Your task to perform on an android device: Check the news Image 0: 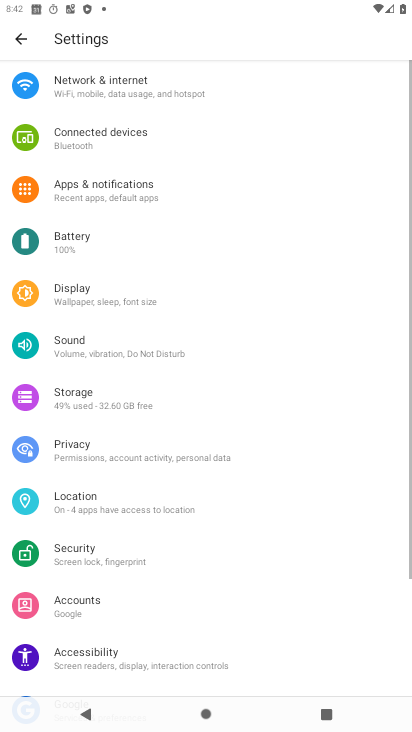
Step 0: press home button
Your task to perform on an android device: Check the news Image 1: 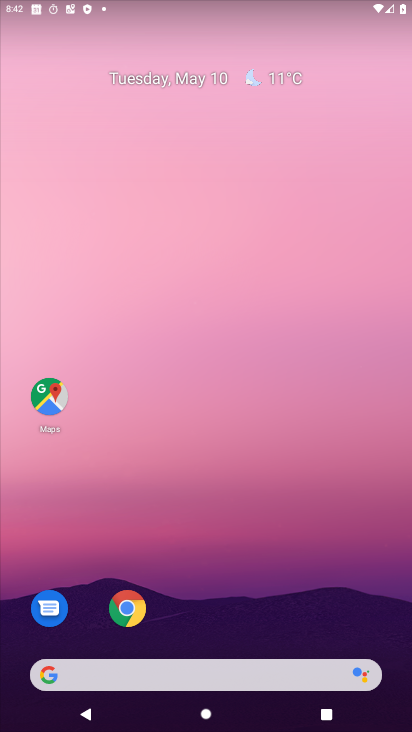
Step 1: drag from (206, 659) to (232, 94)
Your task to perform on an android device: Check the news Image 2: 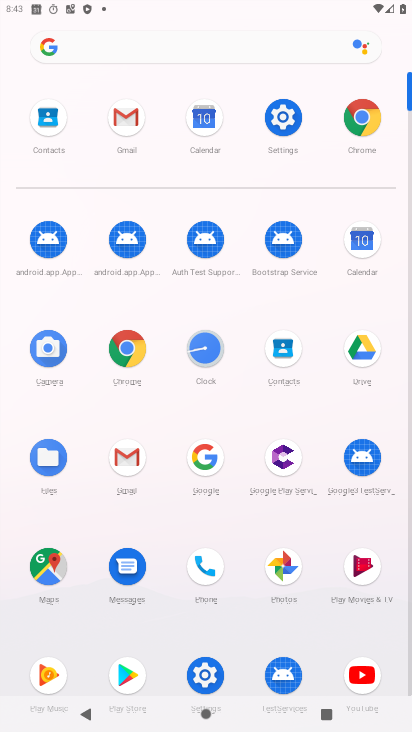
Step 2: click (201, 461)
Your task to perform on an android device: Check the news Image 3: 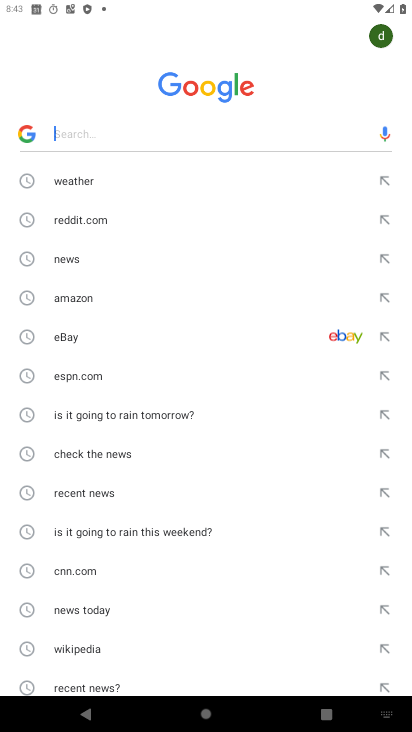
Step 3: click (92, 257)
Your task to perform on an android device: Check the news Image 4: 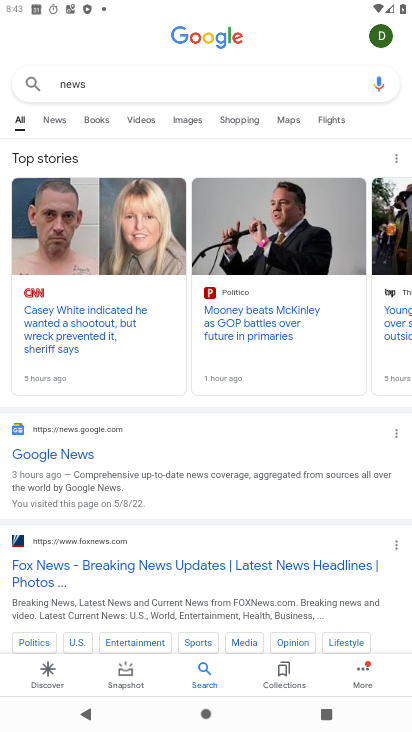
Step 4: click (45, 122)
Your task to perform on an android device: Check the news Image 5: 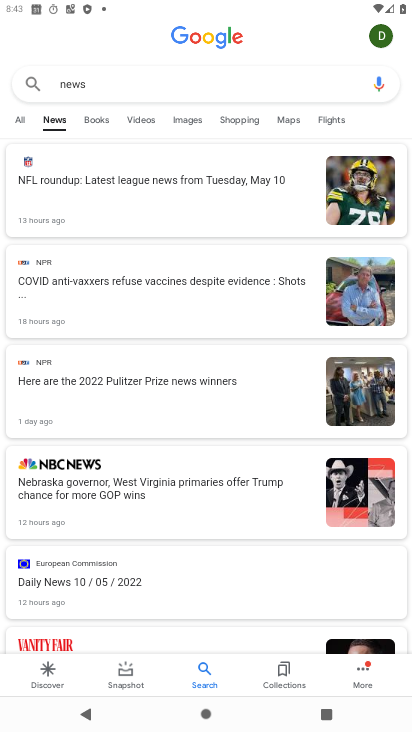
Step 5: task complete